Your task to perform on an android device: Go to network settings Image 0: 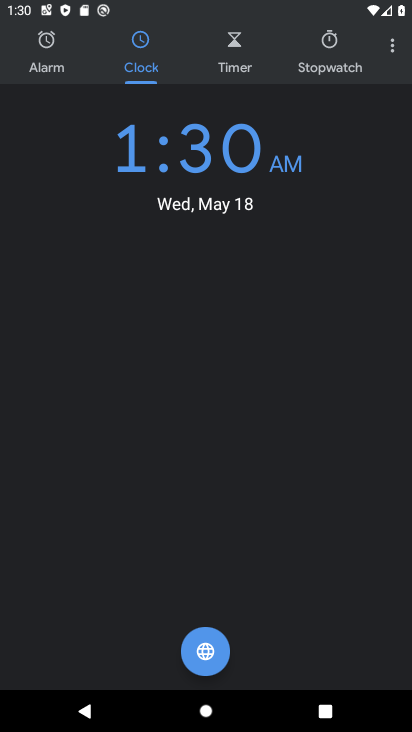
Step 0: press home button
Your task to perform on an android device: Go to network settings Image 1: 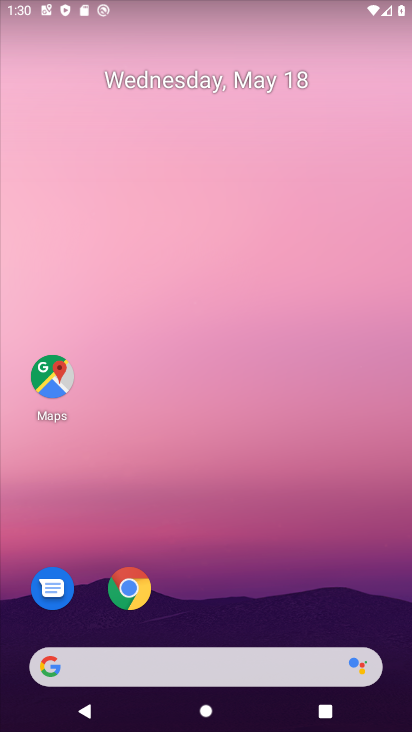
Step 1: drag from (335, 566) to (345, 98)
Your task to perform on an android device: Go to network settings Image 2: 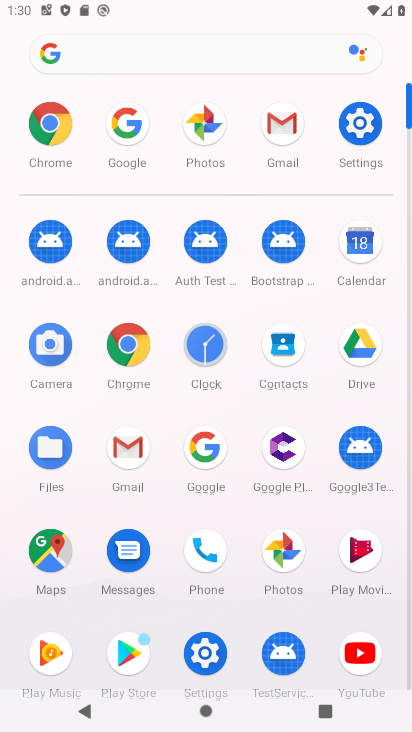
Step 2: click (369, 128)
Your task to perform on an android device: Go to network settings Image 3: 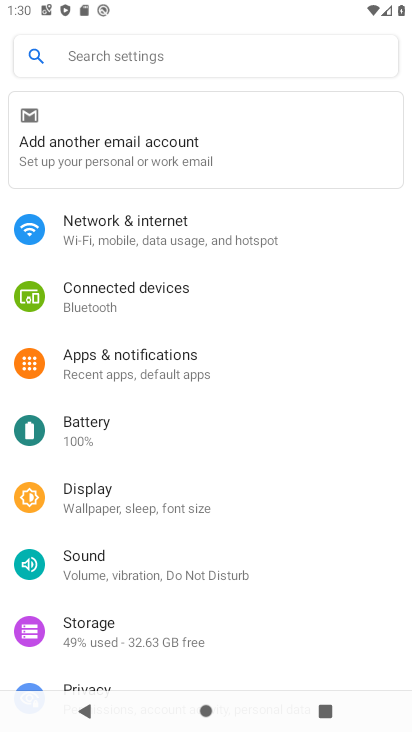
Step 3: drag from (332, 540) to (342, 314)
Your task to perform on an android device: Go to network settings Image 4: 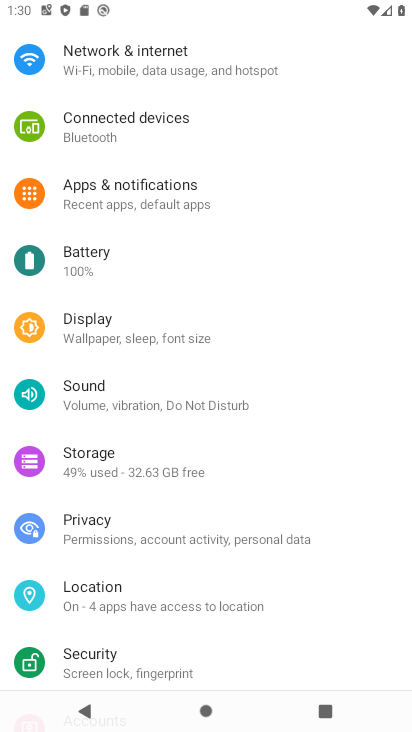
Step 4: drag from (347, 447) to (345, 308)
Your task to perform on an android device: Go to network settings Image 5: 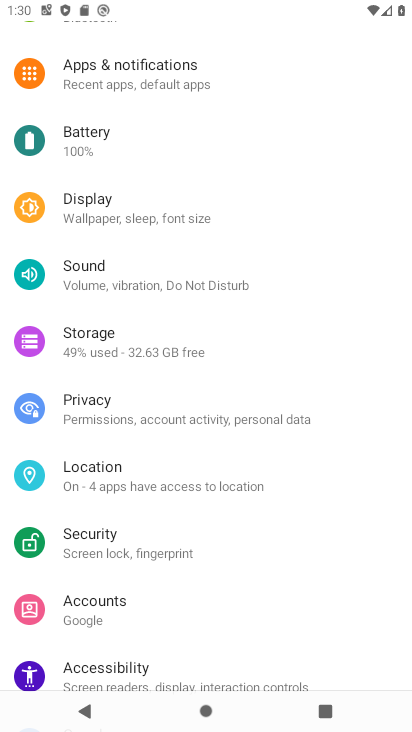
Step 5: drag from (343, 571) to (356, 343)
Your task to perform on an android device: Go to network settings Image 6: 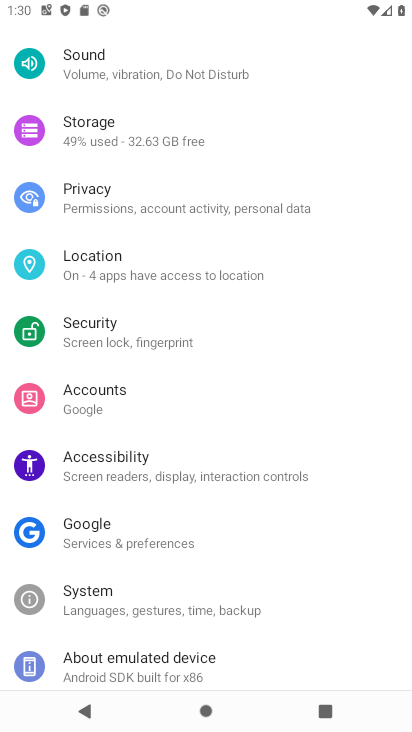
Step 6: drag from (325, 589) to (340, 366)
Your task to perform on an android device: Go to network settings Image 7: 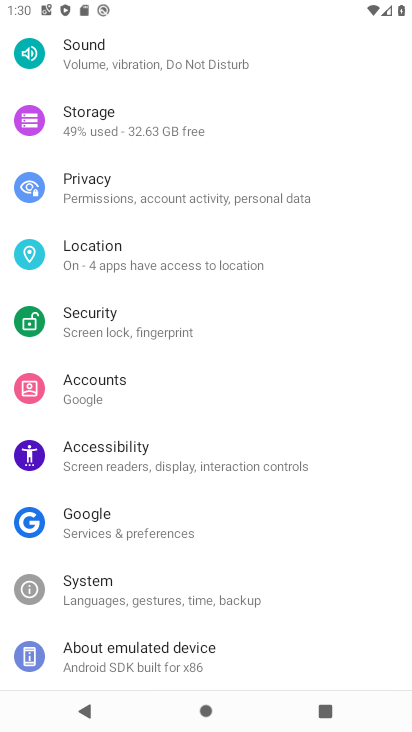
Step 7: drag from (347, 250) to (331, 439)
Your task to perform on an android device: Go to network settings Image 8: 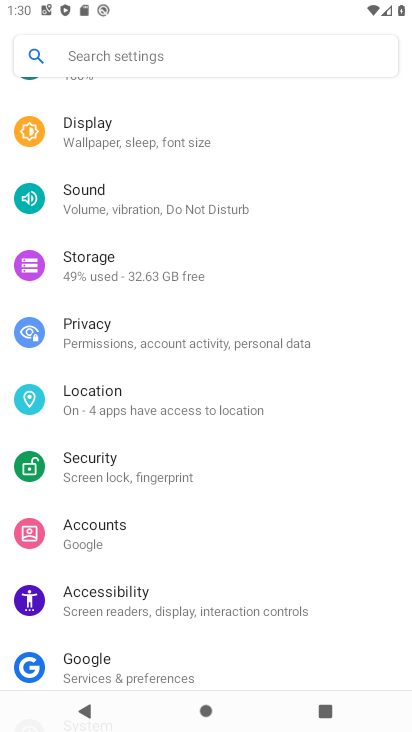
Step 8: drag from (348, 220) to (333, 471)
Your task to perform on an android device: Go to network settings Image 9: 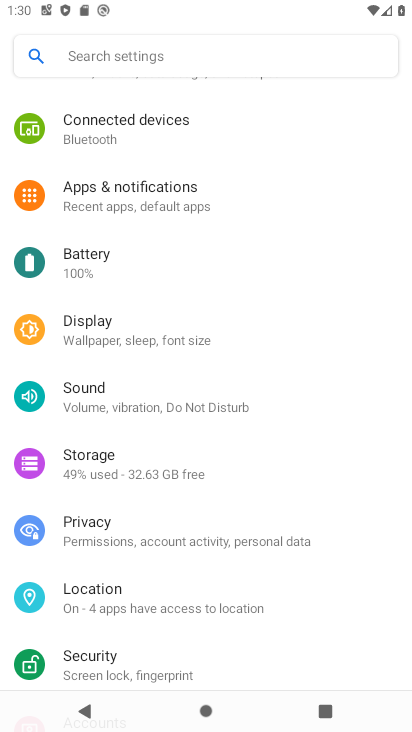
Step 9: drag from (306, 246) to (289, 547)
Your task to perform on an android device: Go to network settings Image 10: 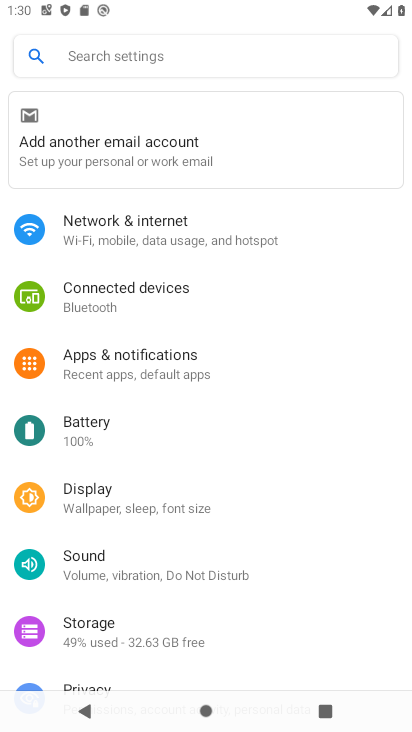
Step 10: click (271, 231)
Your task to perform on an android device: Go to network settings Image 11: 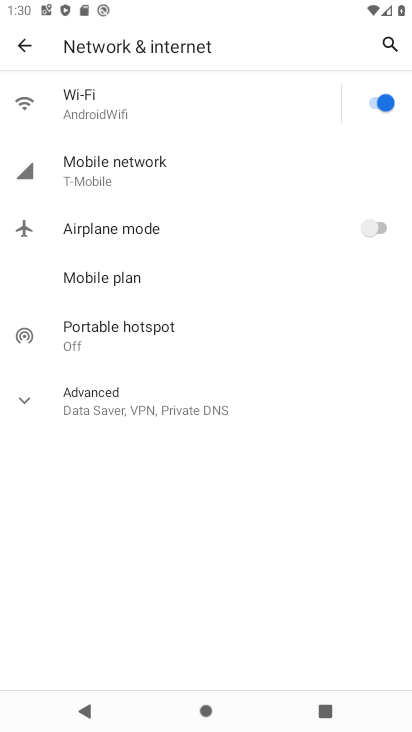
Step 11: task complete